Your task to perform on an android device: Go to wifi settings Image 0: 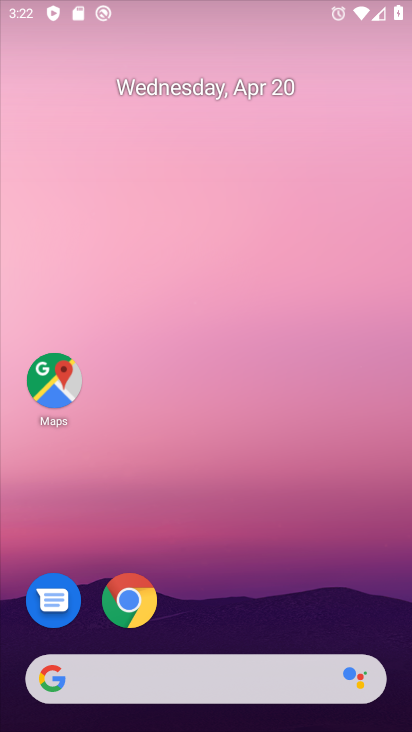
Step 0: drag from (354, 624) to (247, 265)
Your task to perform on an android device: Go to wifi settings Image 1: 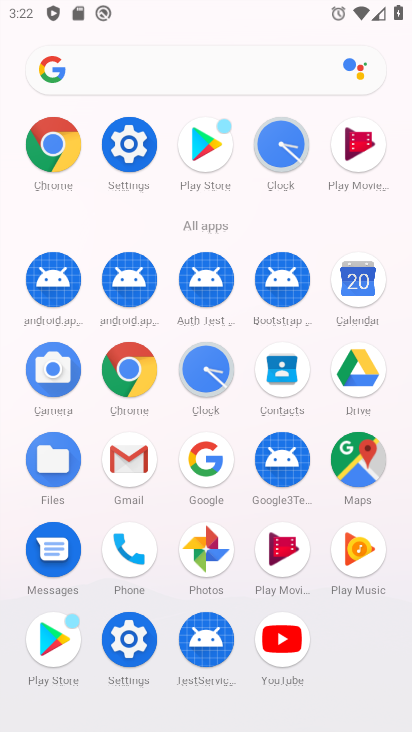
Step 1: click (124, 146)
Your task to perform on an android device: Go to wifi settings Image 2: 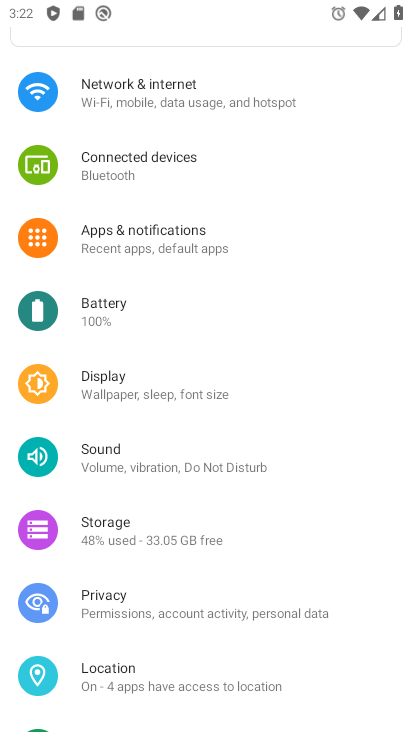
Step 2: click (151, 85)
Your task to perform on an android device: Go to wifi settings Image 3: 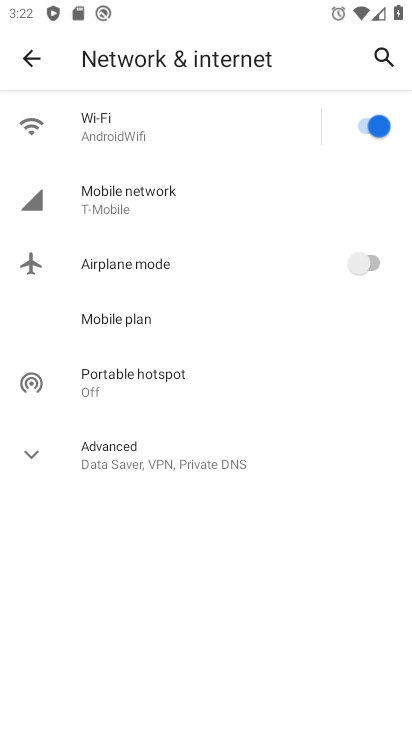
Step 3: click (168, 126)
Your task to perform on an android device: Go to wifi settings Image 4: 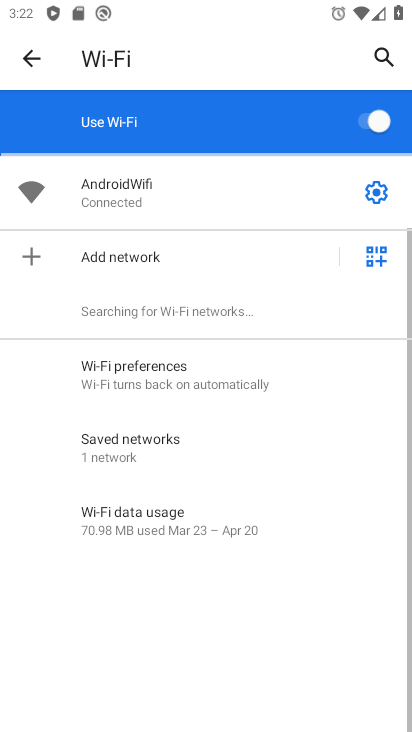
Step 4: task complete